Your task to perform on an android device: Open Google Chrome and click the shortcut for Amazon.com Image 0: 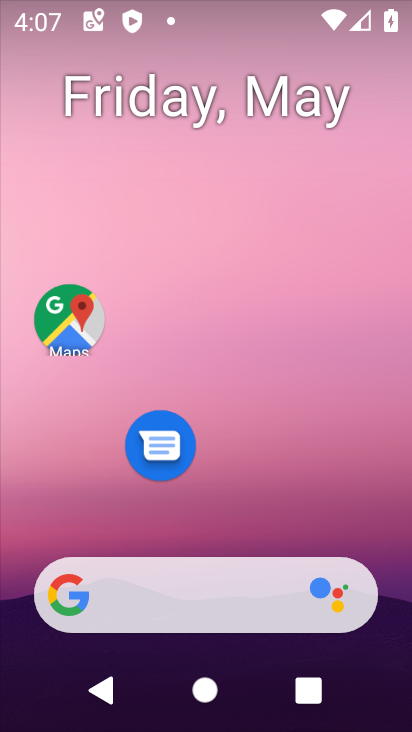
Step 0: drag from (214, 524) to (281, 0)
Your task to perform on an android device: Open Google Chrome and click the shortcut for Amazon.com Image 1: 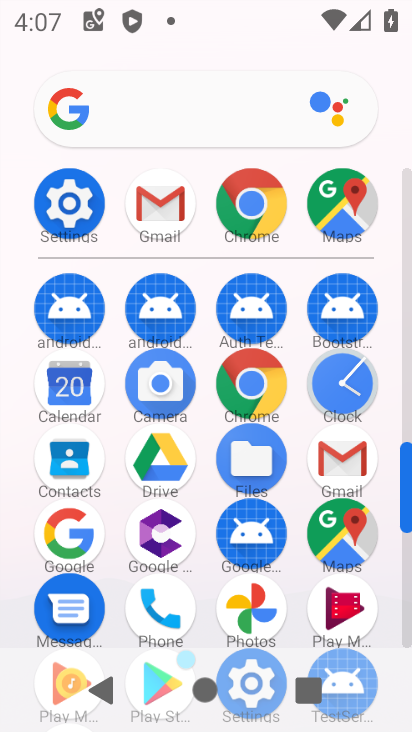
Step 1: click (242, 381)
Your task to perform on an android device: Open Google Chrome and click the shortcut for Amazon.com Image 2: 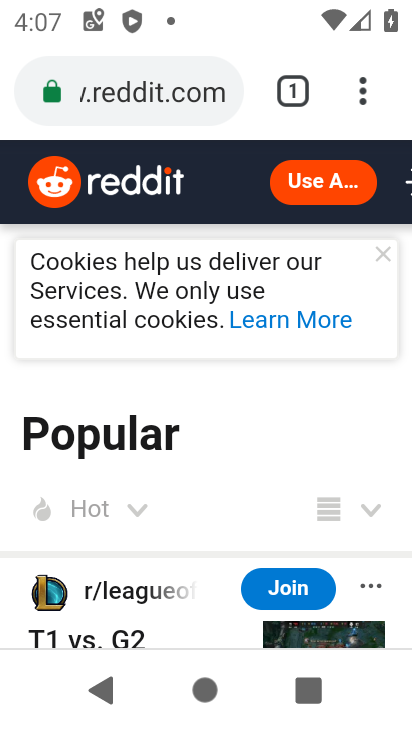
Step 2: click (367, 91)
Your task to perform on an android device: Open Google Chrome and click the shortcut for Amazon.com Image 3: 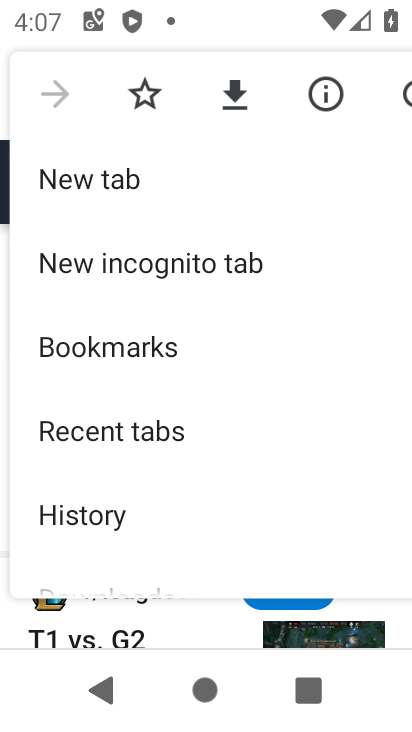
Step 3: click (108, 183)
Your task to perform on an android device: Open Google Chrome and click the shortcut for Amazon.com Image 4: 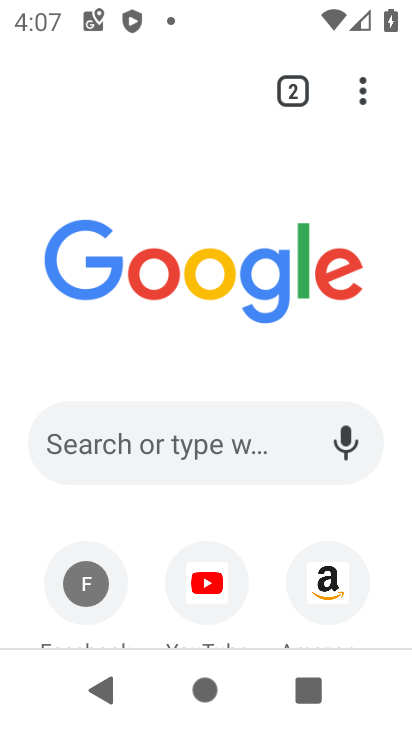
Step 4: click (321, 574)
Your task to perform on an android device: Open Google Chrome and click the shortcut for Amazon.com Image 5: 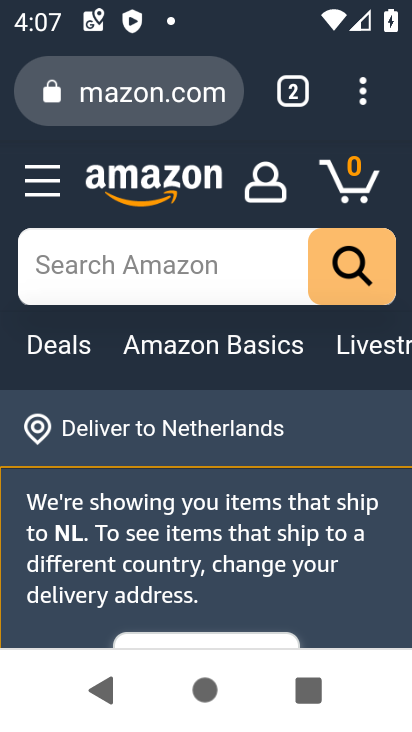
Step 5: task complete